Your task to perform on an android device: Open ESPN.com Image 0: 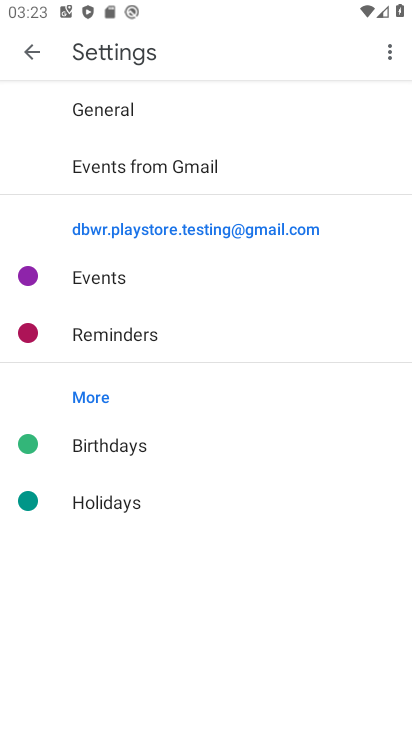
Step 0: press home button
Your task to perform on an android device: Open ESPN.com Image 1: 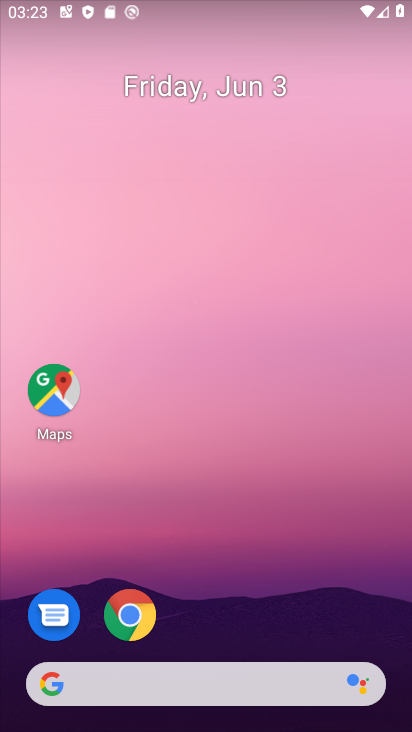
Step 1: click (148, 597)
Your task to perform on an android device: Open ESPN.com Image 2: 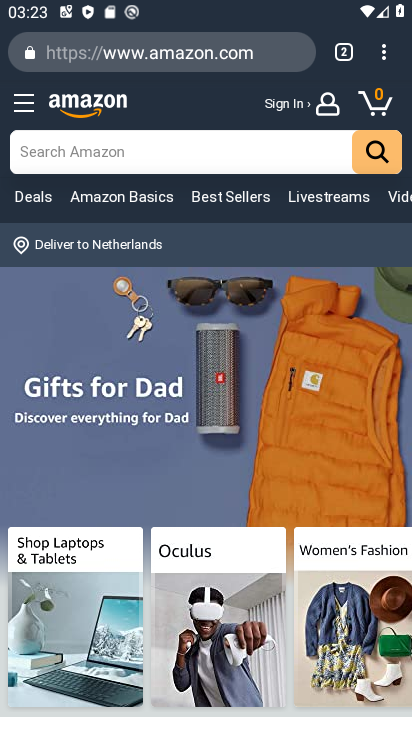
Step 2: click (230, 53)
Your task to perform on an android device: Open ESPN.com Image 3: 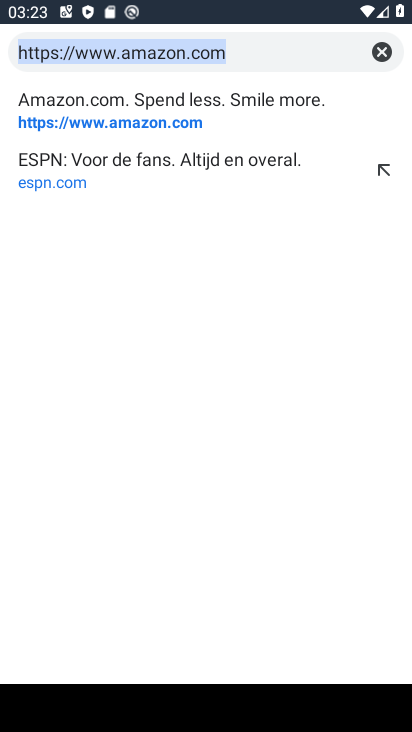
Step 3: type "espn.com"
Your task to perform on an android device: Open ESPN.com Image 4: 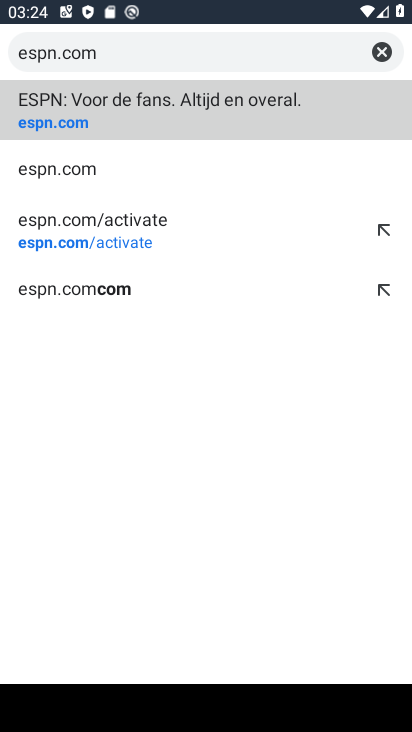
Step 4: click (68, 111)
Your task to perform on an android device: Open ESPN.com Image 5: 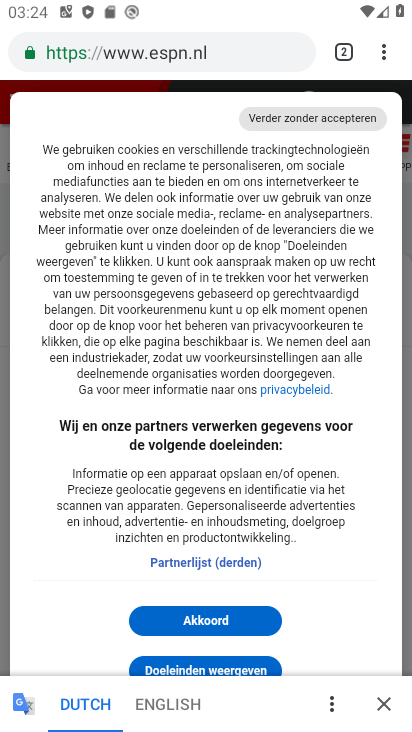
Step 5: task complete